Your task to perform on an android device: Toggle the flashlight Image 0: 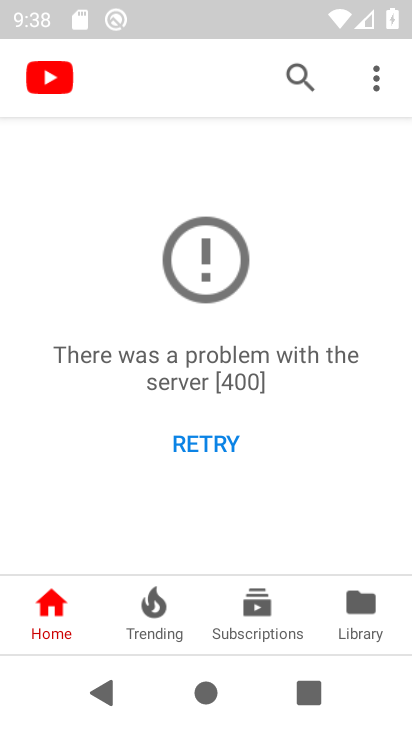
Step 0: press home button
Your task to perform on an android device: Toggle the flashlight Image 1: 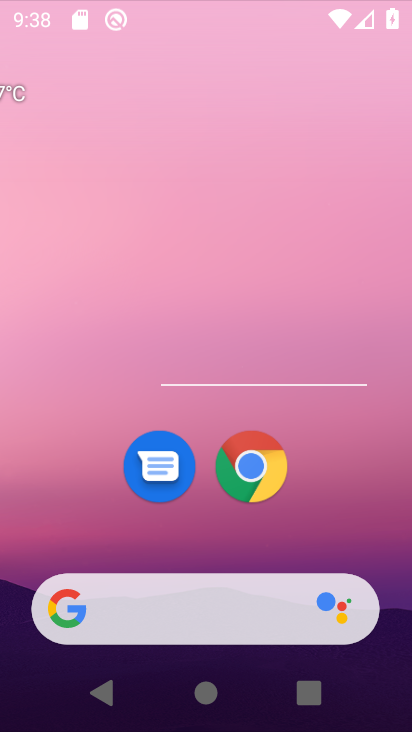
Step 1: drag from (124, 534) to (131, 260)
Your task to perform on an android device: Toggle the flashlight Image 2: 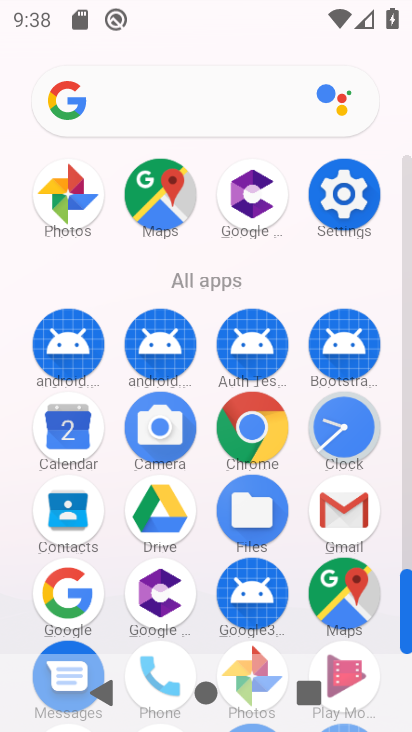
Step 2: click (356, 200)
Your task to perform on an android device: Toggle the flashlight Image 3: 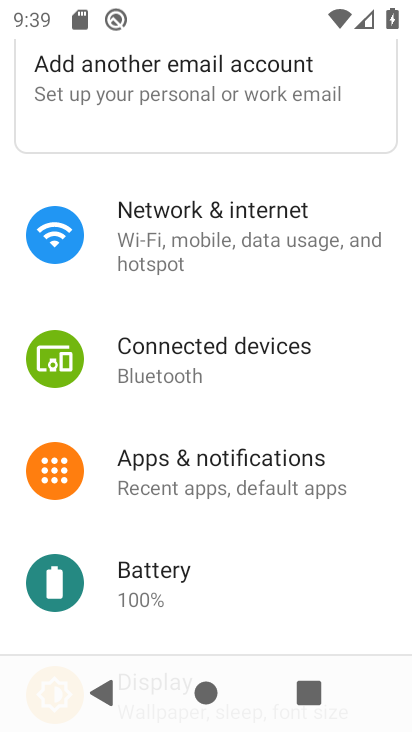
Step 3: task complete